Your task to perform on an android device: What's the weather today? Image 0: 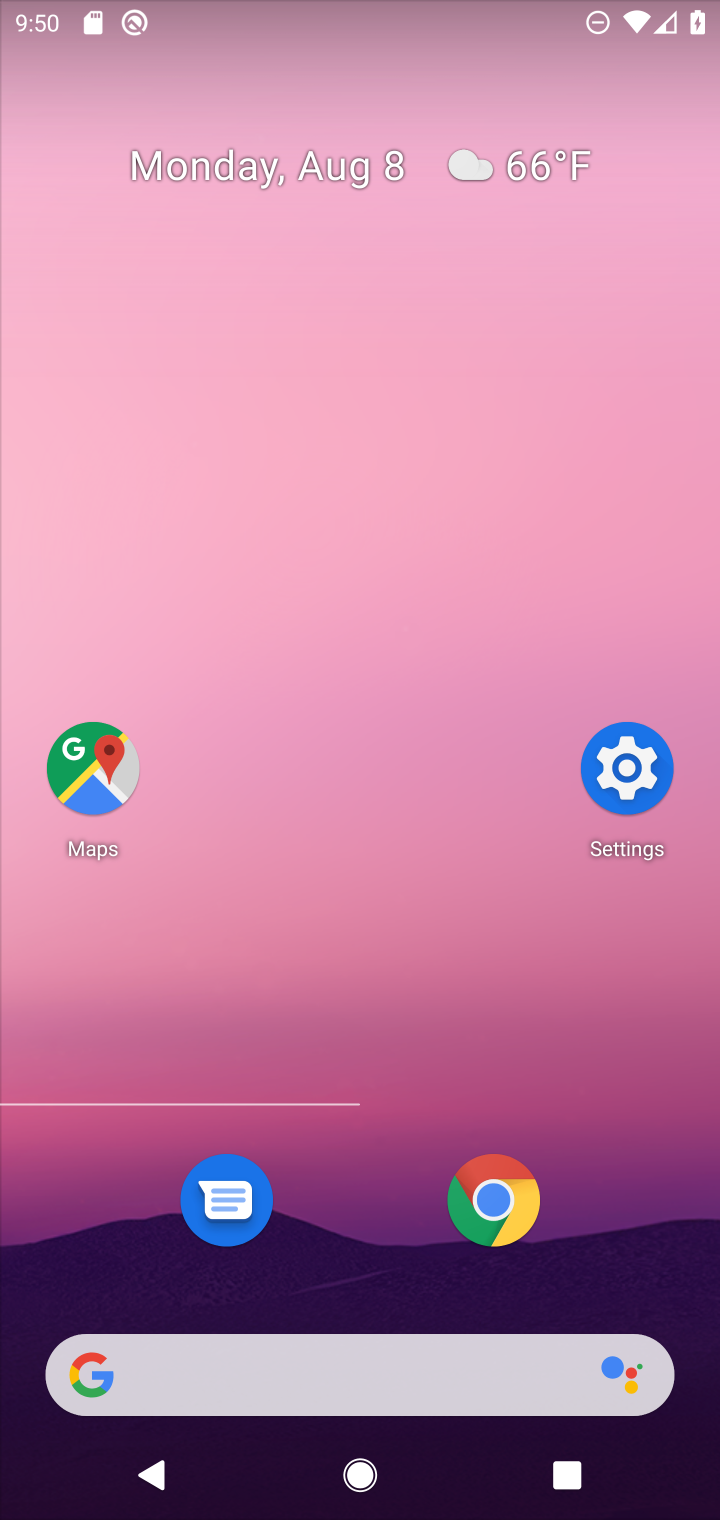
Step 0: press home button
Your task to perform on an android device: What's the weather today? Image 1: 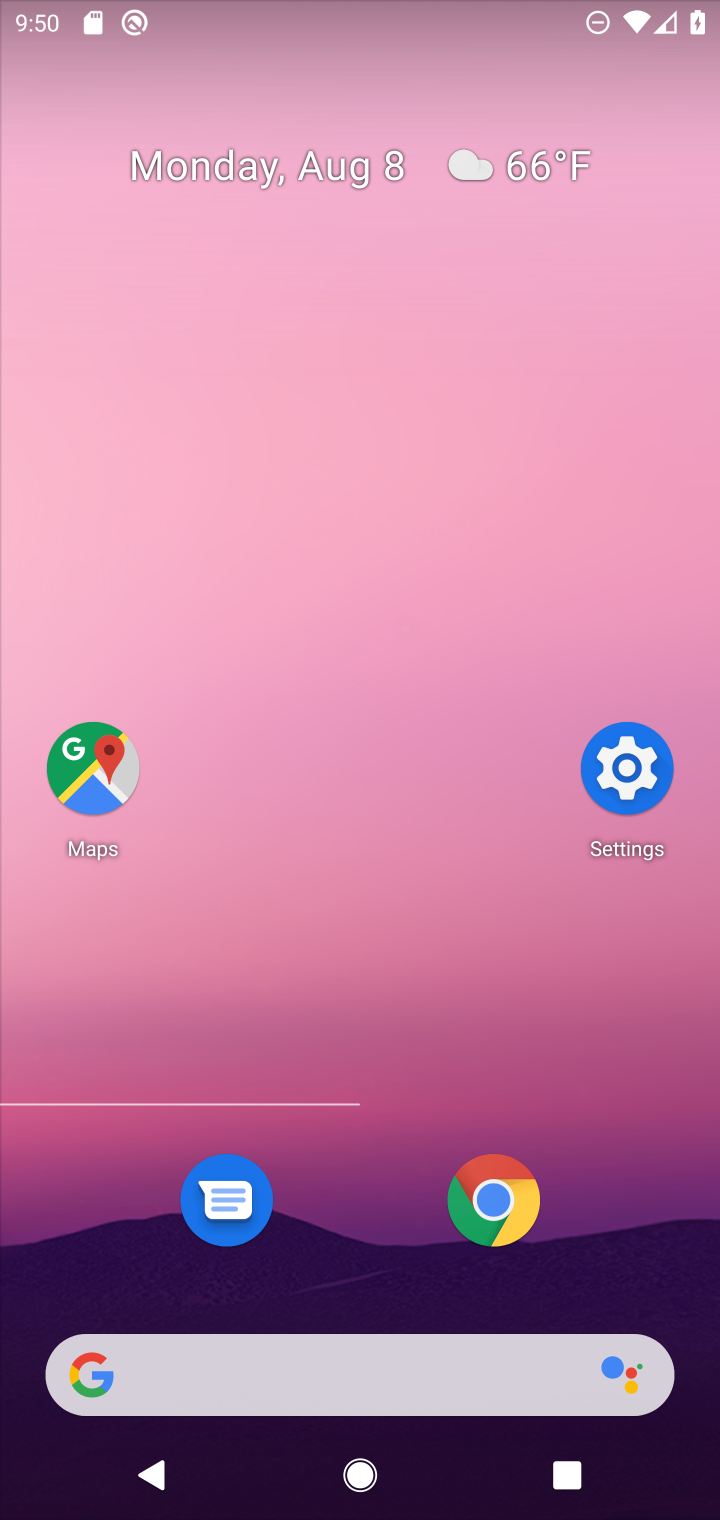
Step 1: drag from (339, 1387) to (620, 246)
Your task to perform on an android device: What's the weather today? Image 2: 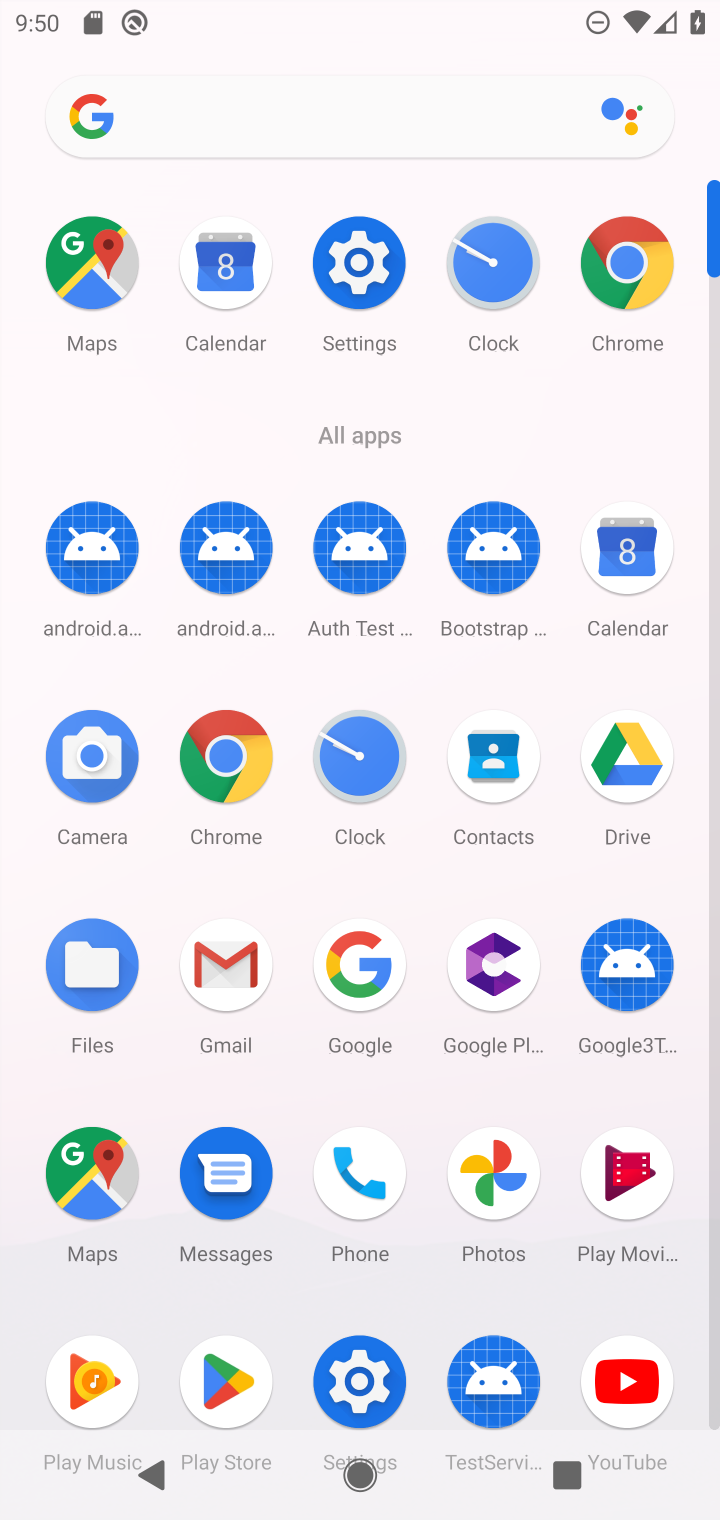
Step 2: click (369, 983)
Your task to perform on an android device: What's the weather today? Image 3: 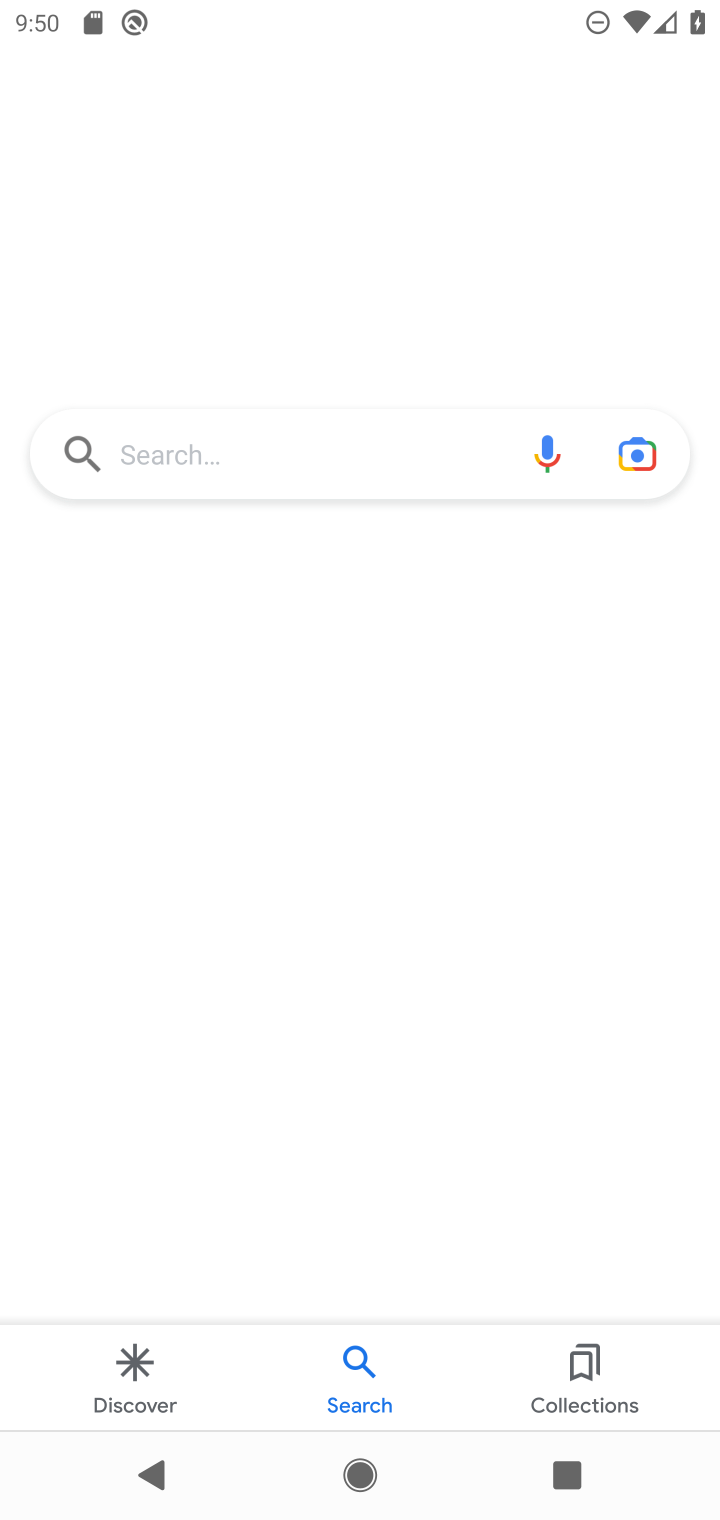
Step 3: click (217, 453)
Your task to perform on an android device: What's the weather today? Image 4: 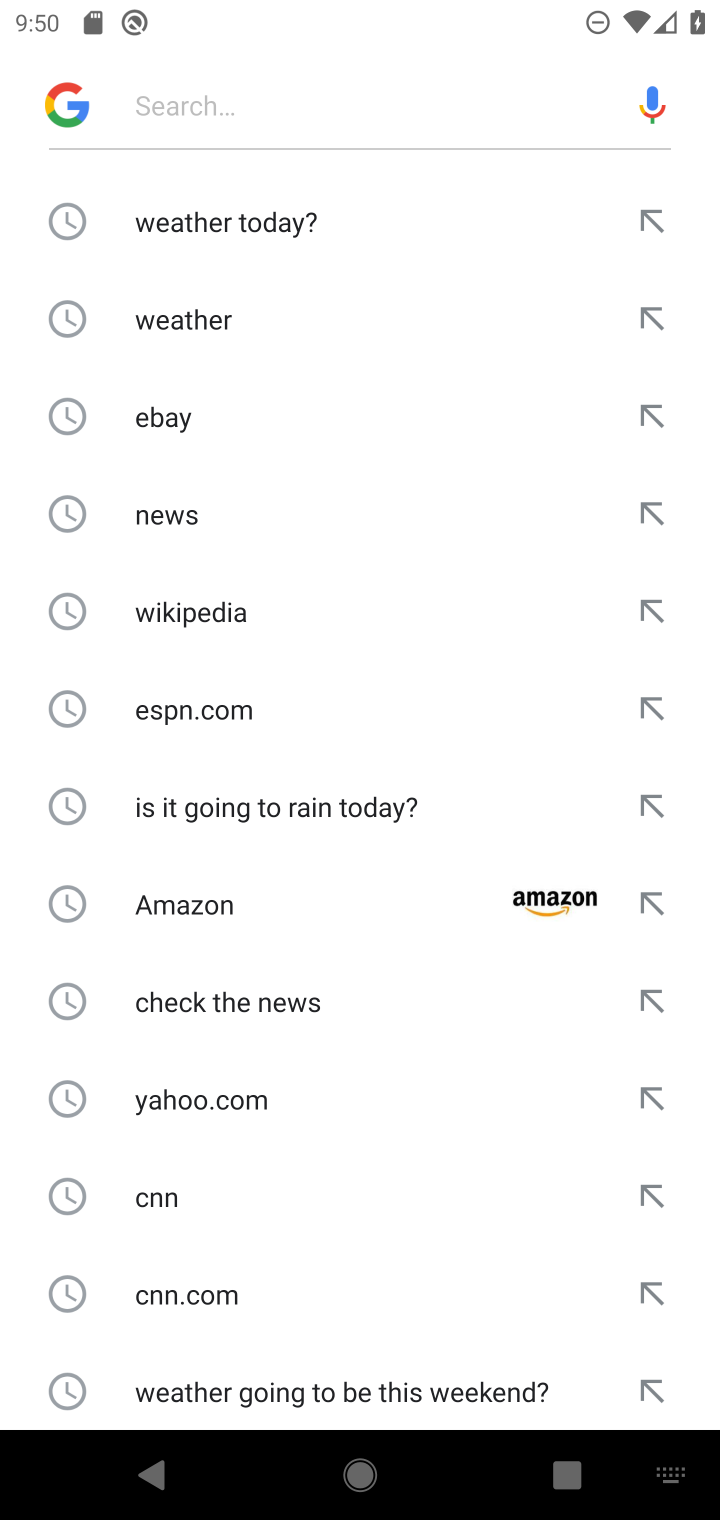
Step 4: click (205, 321)
Your task to perform on an android device: What's the weather today? Image 5: 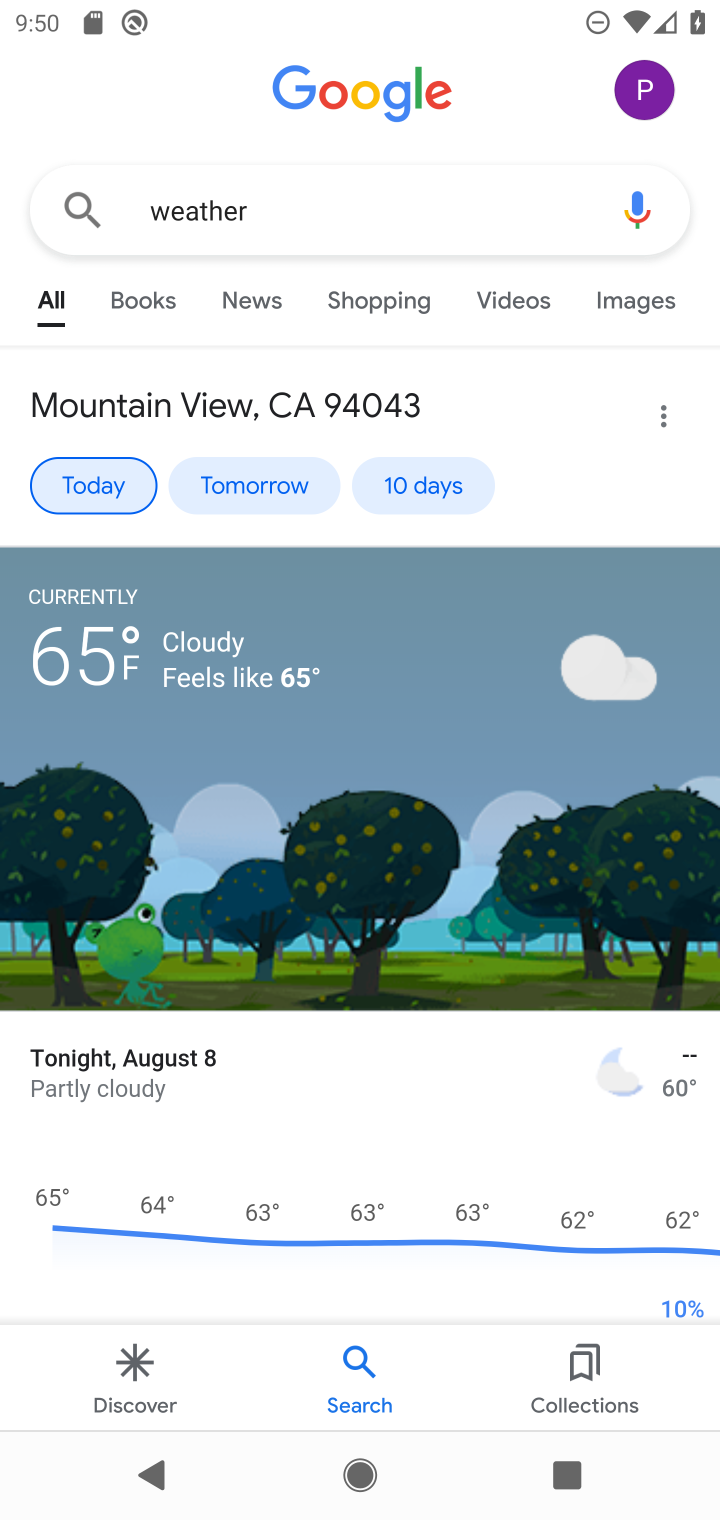
Step 5: task complete